Your task to perform on an android device: open chrome and create a bookmark for the current page Image 0: 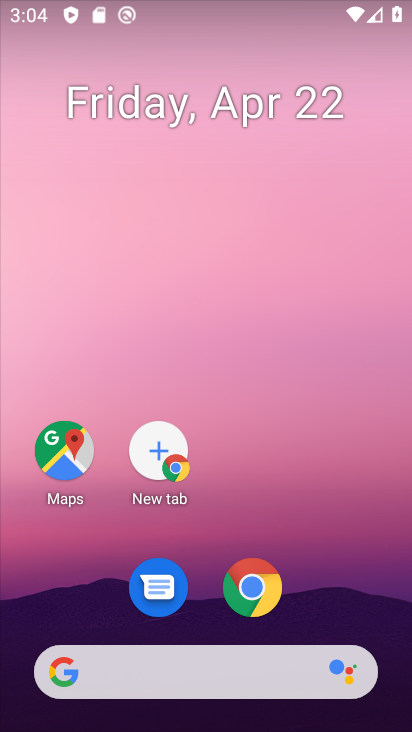
Step 0: click (256, 587)
Your task to perform on an android device: open chrome and create a bookmark for the current page Image 1: 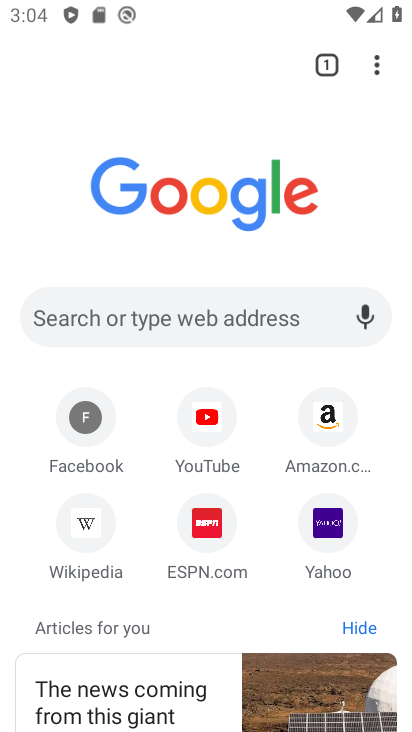
Step 1: click (225, 311)
Your task to perform on an android device: open chrome and create a bookmark for the current page Image 2: 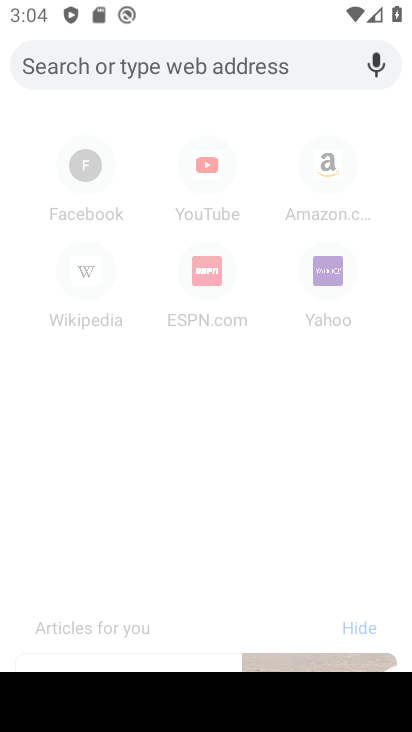
Step 2: type "yoda"
Your task to perform on an android device: open chrome and create a bookmark for the current page Image 3: 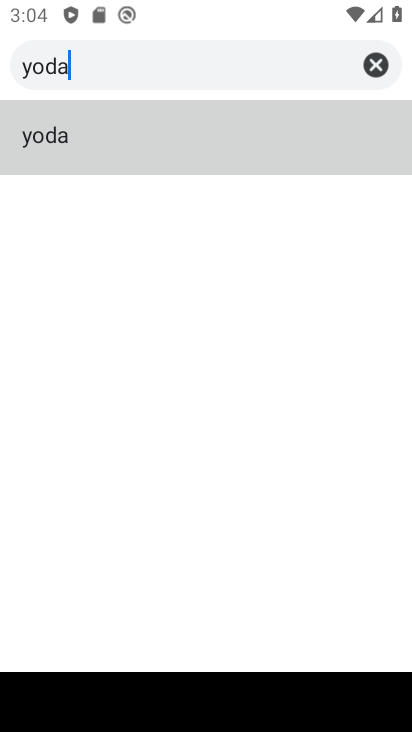
Step 3: type ""
Your task to perform on an android device: open chrome and create a bookmark for the current page Image 4: 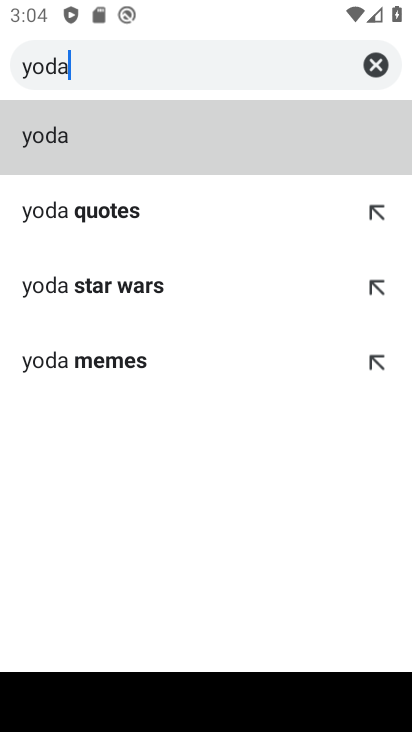
Step 4: click (222, 144)
Your task to perform on an android device: open chrome and create a bookmark for the current page Image 5: 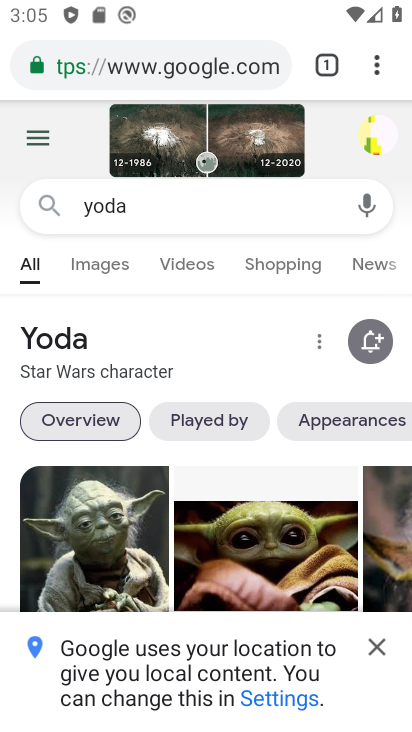
Step 5: drag from (112, 553) to (160, 166)
Your task to perform on an android device: open chrome and create a bookmark for the current page Image 6: 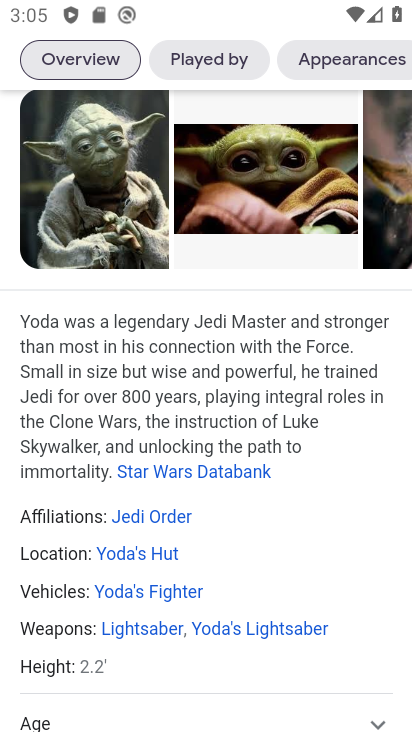
Step 6: drag from (89, 501) to (158, 145)
Your task to perform on an android device: open chrome and create a bookmark for the current page Image 7: 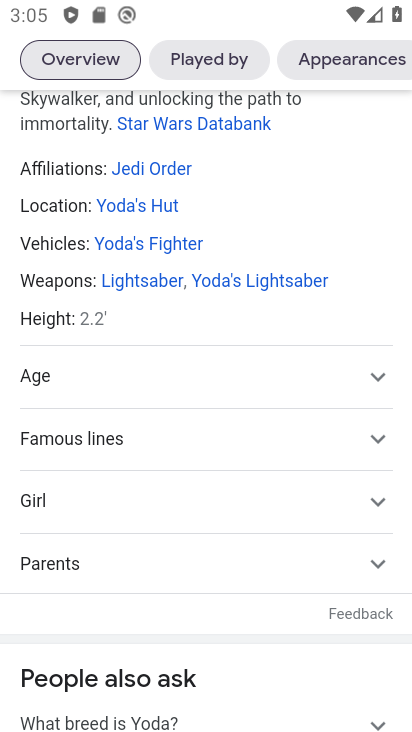
Step 7: drag from (92, 571) to (160, 196)
Your task to perform on an android device: open chrome and create a bookmark for the current page Image 8: 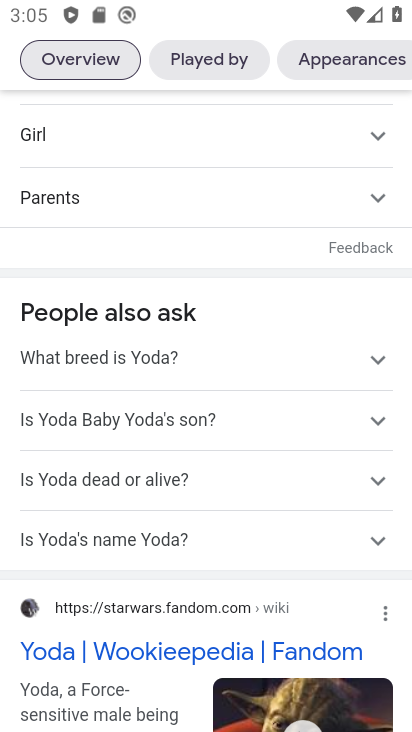
Step 8: click (104, 653)
Your task to perform on an android device: open chrome and create a bookmark for the current page Image 9: 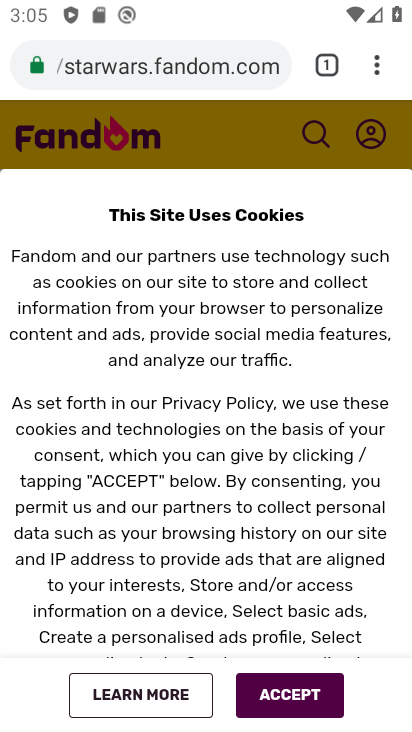
Step 9: click (374, 75)
Your task to perform on an android device: open chrome and create a bookmark for the current page Image 10: 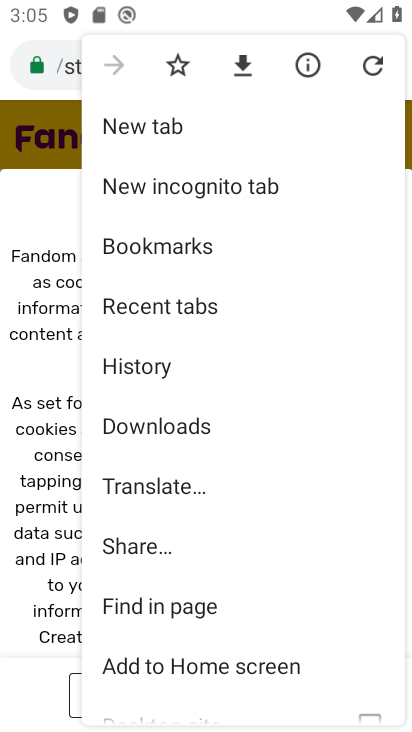
Step 10: click (174, 65)
Your task to perform on an android device: open chrome and create a bookmark for the current page Image 11: 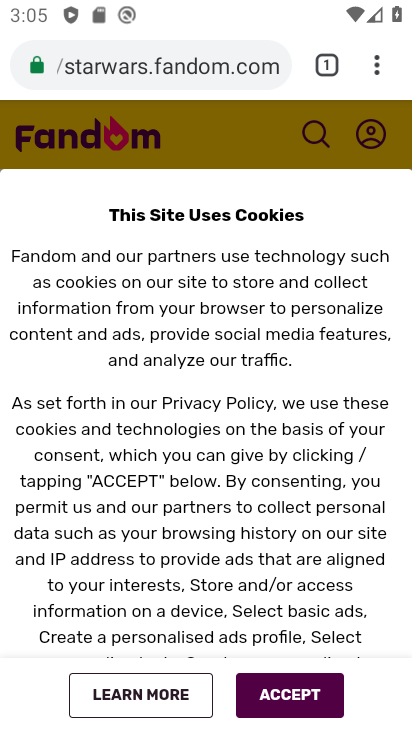
Step 11: task complete